Your task to perform on an android device: Go to Wikipedia Image 0: 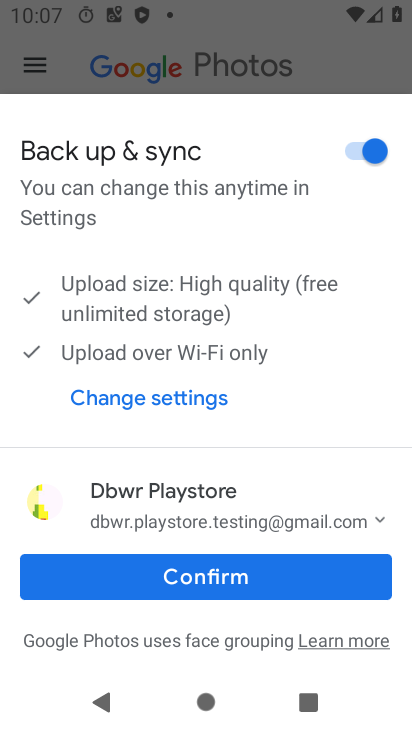
Step 0: press home button
Your task to perform on an android device: Go to Wikipedia Image 1: 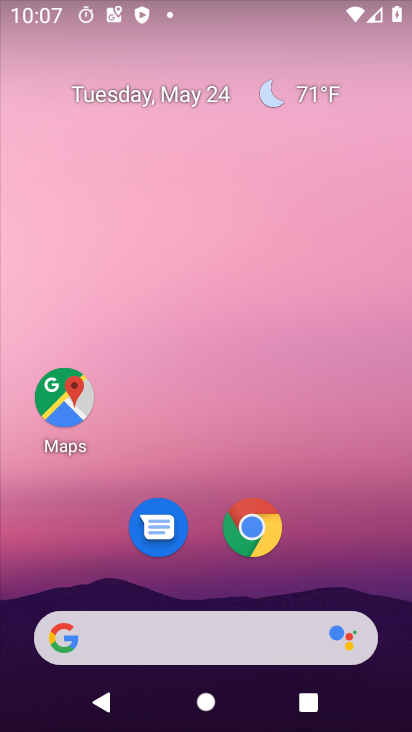
Step 1: click (273, 532)
Your task to perform on an android device: Go to Wikipedia Image 2: 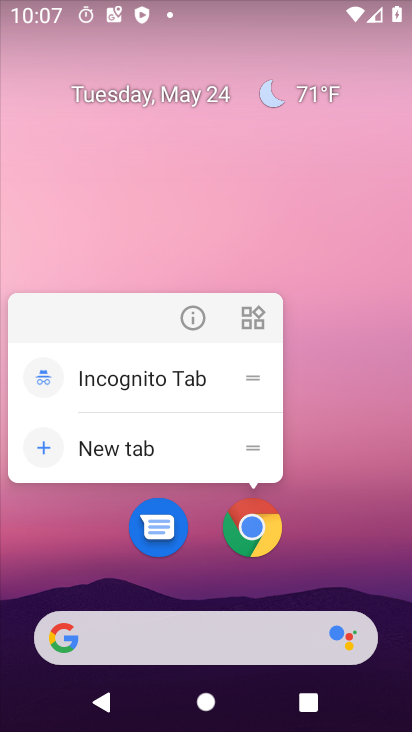
Step 2: click (258, 524)
Your task to perform on an android device: Go to Wikipedia Image 3: 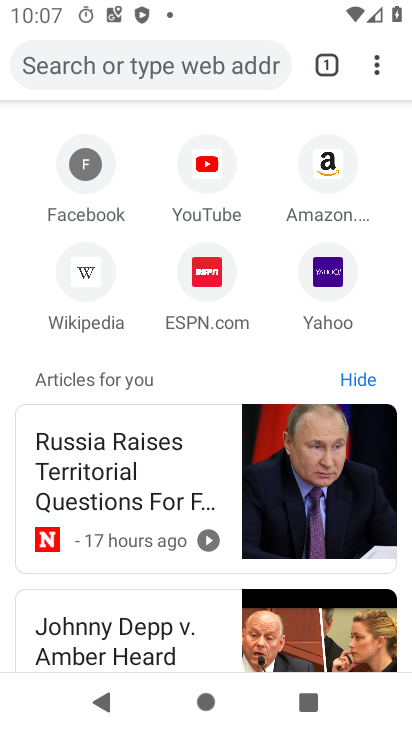
Step 3: click (92, 271)
Your task to perform on an android device: Go to Wikipedia Image 4: 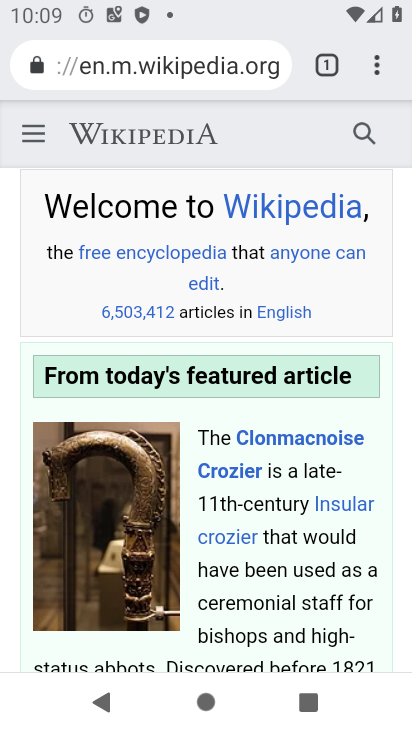
Step 4: task complete